Your task to perform on an android device: Open the calendar and show me this week's events? Image 0: 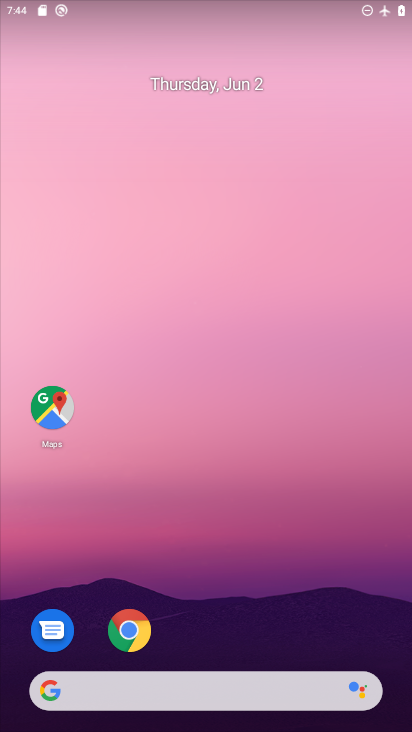
Step 0: drag from (132, 720) to (138, 133)
Your task to perform on an android device: Open the calendar and show me this week's events? Image 1: 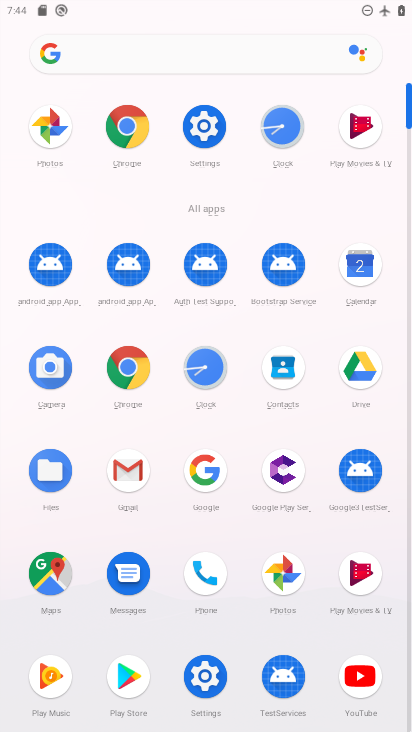
Step 1: click (378, 275)
Your task to perform on an android device: Open the calendar and show me this week's events? Image 2: 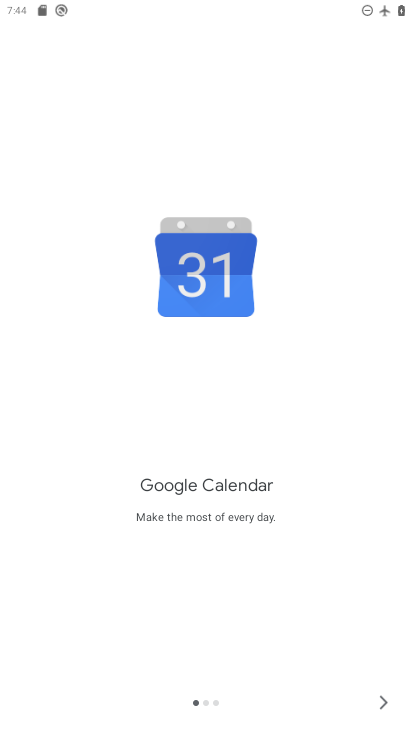
Step 2: click (375, 707)
Your task to perform on an android device: Open the calendar and show me this week's events? Image 3: 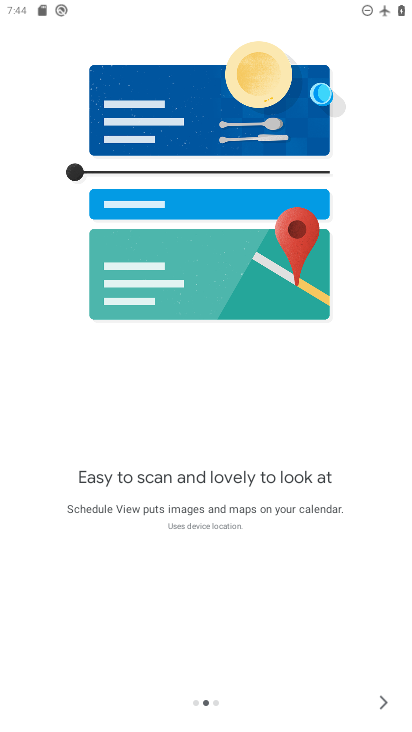
Step 3: click (377, 704)
Your task to perform on an android device: Open the calendar and show me this week's events? Image 4: 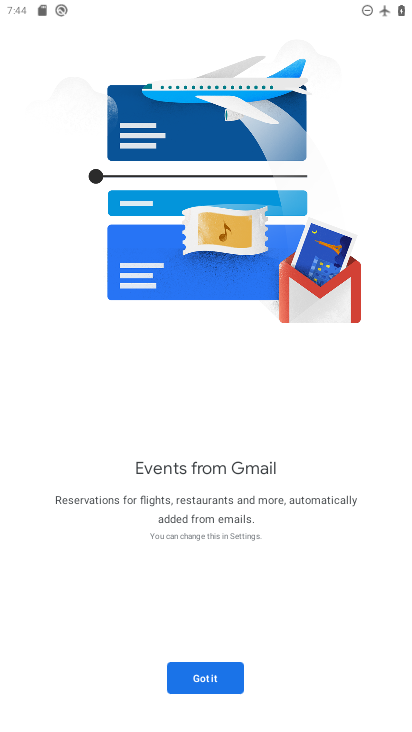
Step 4: click (183, 694)
Your task to perform on an android device: Open the calendar and show me this week's events? Image 5: 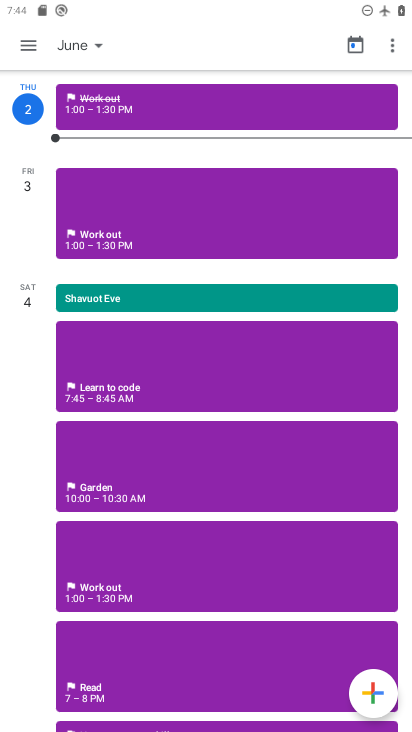
Step 5: click (24, 37)
Your task to perform on an android device: Open the calendar and show me this week's events? Image 6: 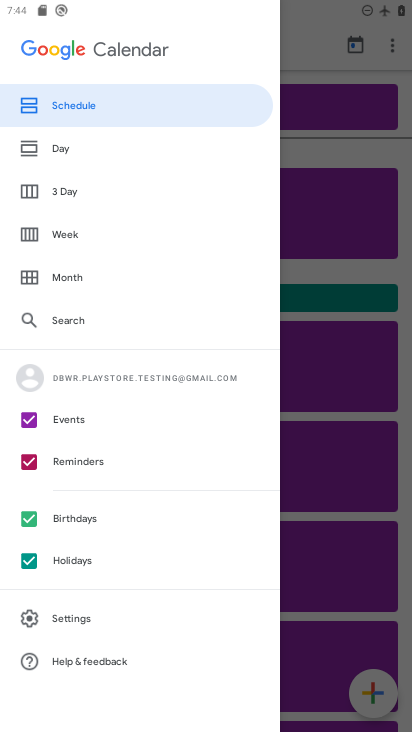
Step 6: click (33, 466)
Your task to perform on an android device: Open the calendar and show me this week's events? Image 7: 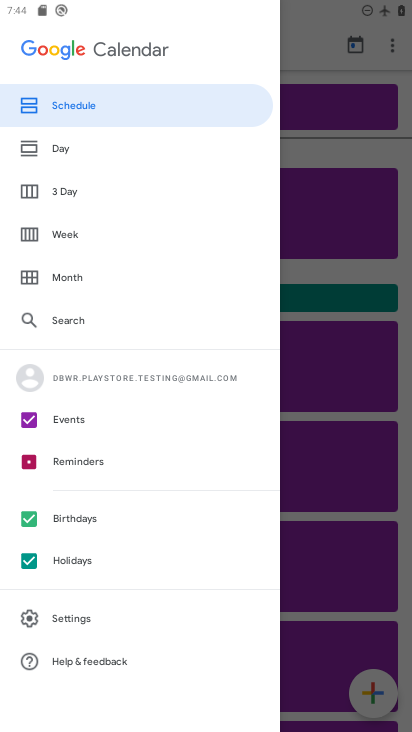
Step 7: click (21, 525)
Your task to perform on an android device: Open the calendar and show me this week's events? Image 8: 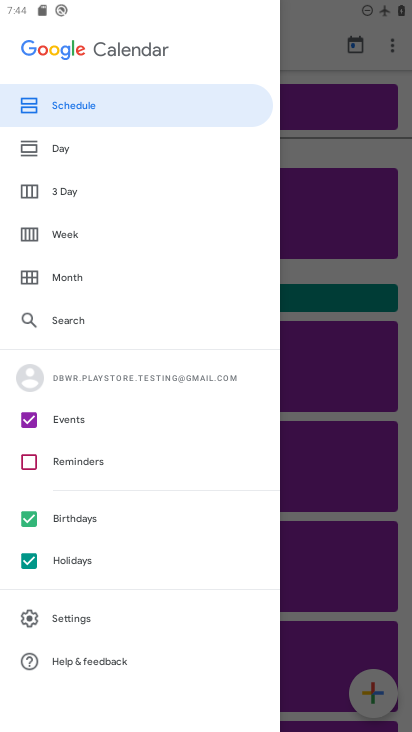
Step 8: click (33, 571)
Your task to perform on an android device: Open the calendar and show me this week's events? Image 9: 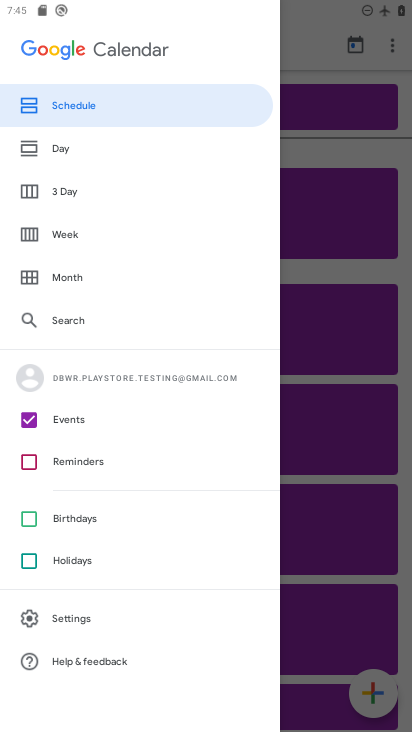
Step 9: click (64, 235)
Your task to perform on an android device: Open the calendar and show me this week's events? Image 10: 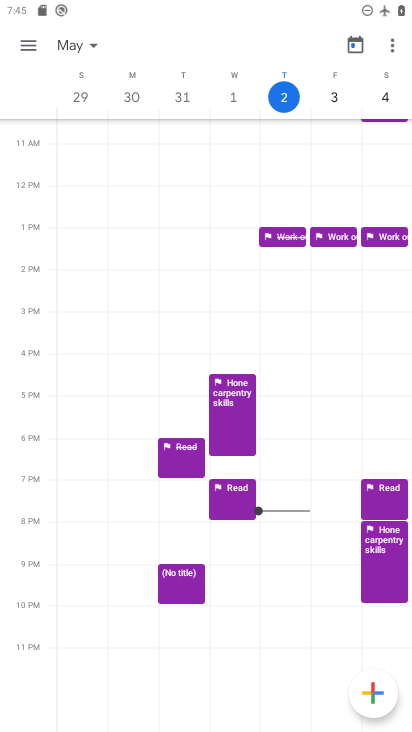
Step 10: task complete